Your task to perform on an android device: Go to Android settings Image 0: 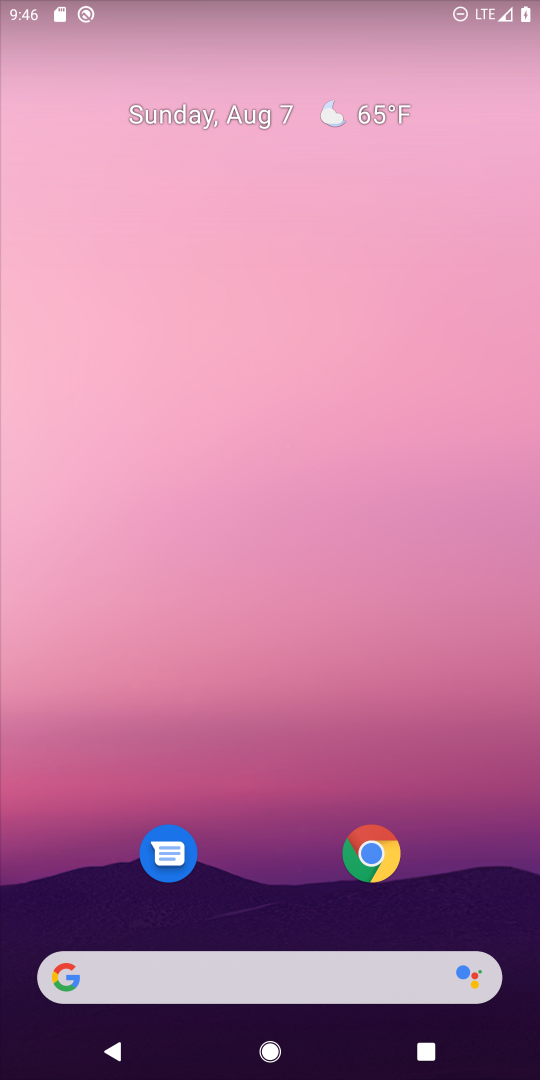
Step 0: drag from (264, 923) to (330, 353)
Your task to perform on an android device: Go to Android settings Image 1: 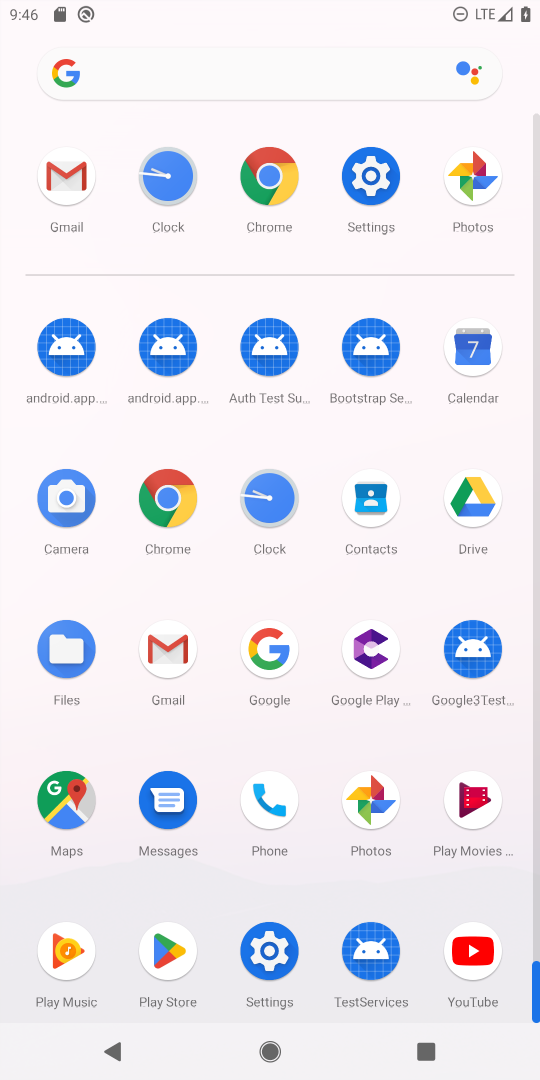
Step 1: click (367, 161)
Your task to perform on an android device: Go to Android settings Image 2: 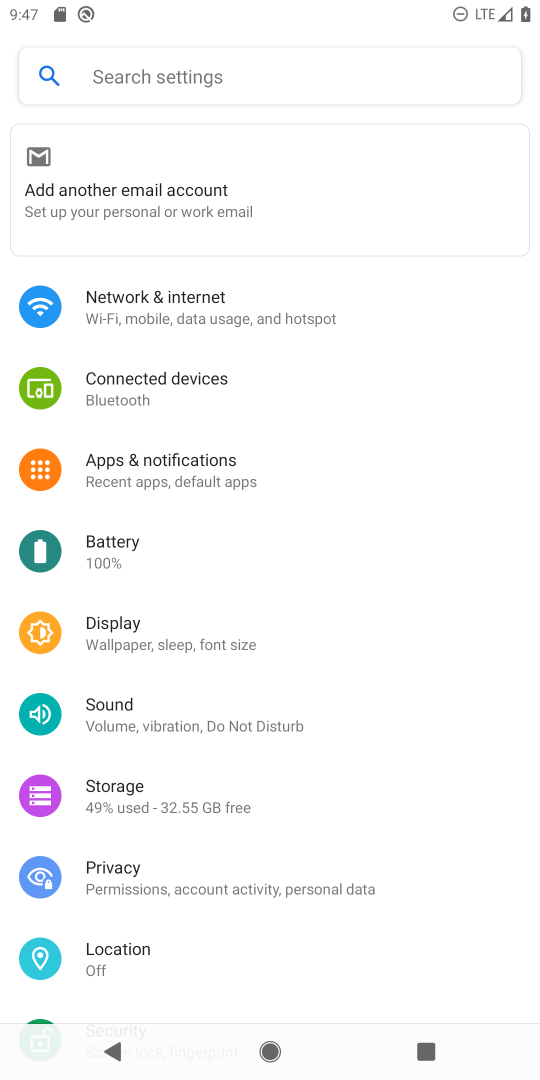
Step 2: task complete